Your task to perform on an android device: Toggle the flashlight Image 0: 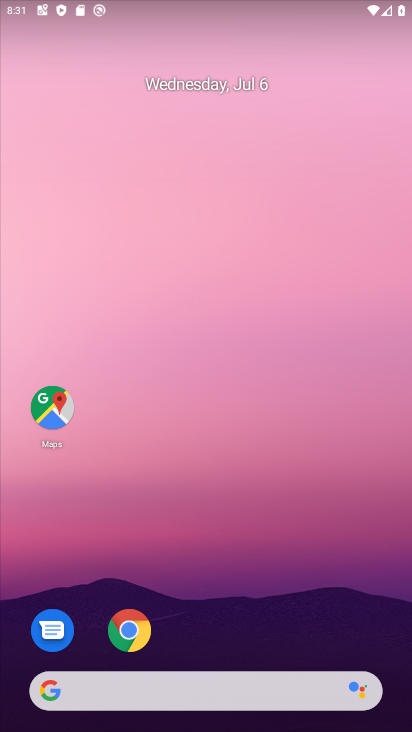
Step 0: drag from (391, 685) to (384, 60)
Your task to perform on an android device: Toggle the flashlight Image 1: 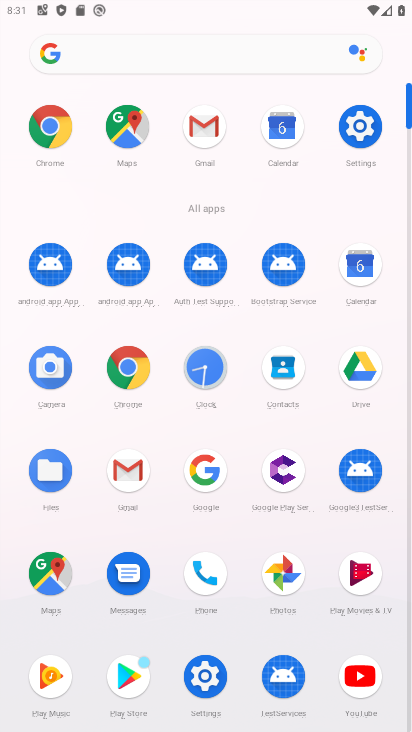
Step 1: click (361, 131)
Your task to perform on an android device: Toggle the flashlight Image 2: 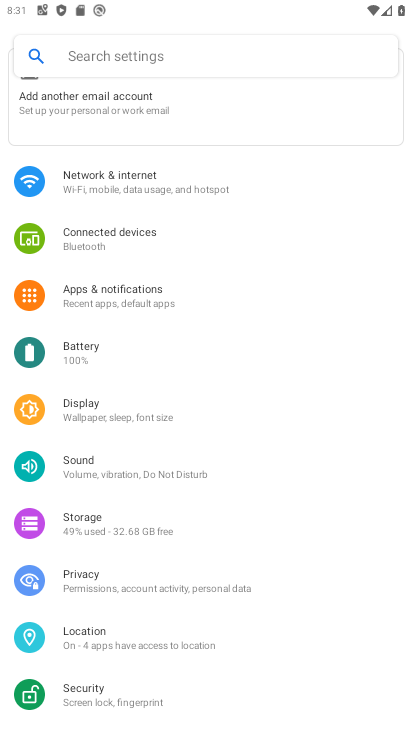
Step 2: click (88, 409)
Your task to perform on an android device: Toggle the flashlight Image 3: 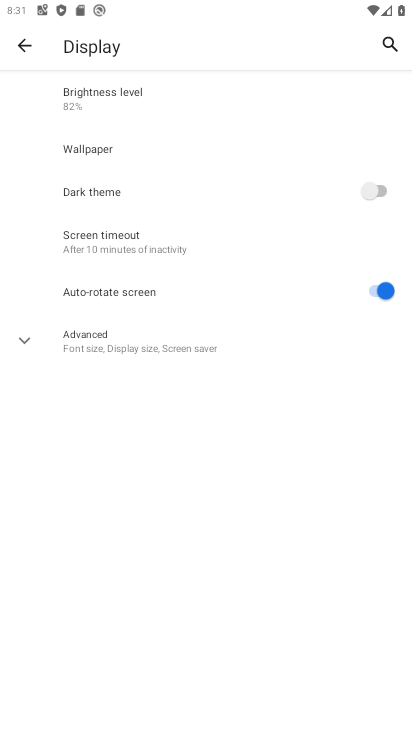
Step 3: task complete